Your task to perform on an android device: Open Chrome and go to settings Image 0: 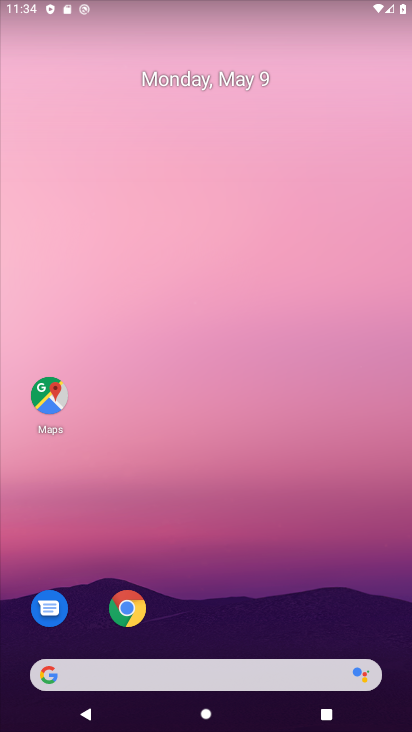
Step 0: drag from (211, 557) to (183, 5)
Your task to perform on an android device: Open Chrome and go to settings Image 1: 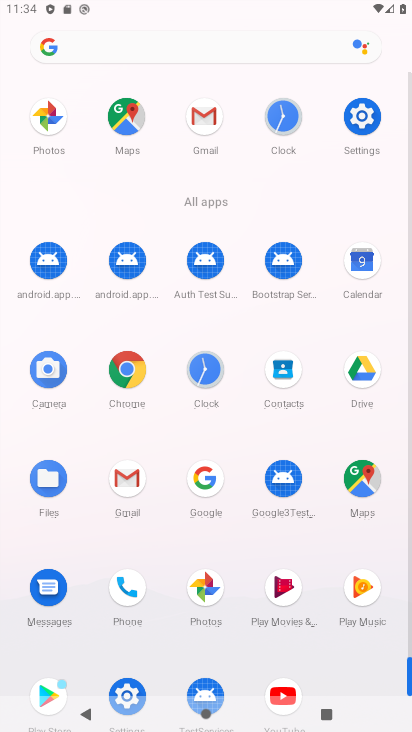
Step 1: drag from (10, 587) to (11, 237)
Your task to perform on an android device: Open Chrome and go to settings Image 2: 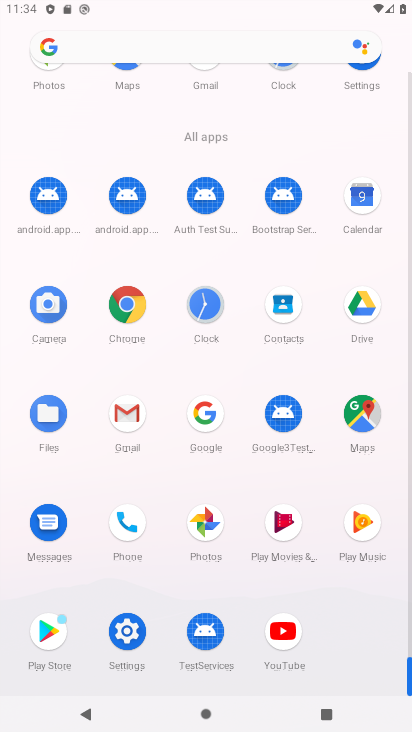
Step 2: click (127, 302)
Your task to perform on an android device: Open Chrome and go to settings Image 3: 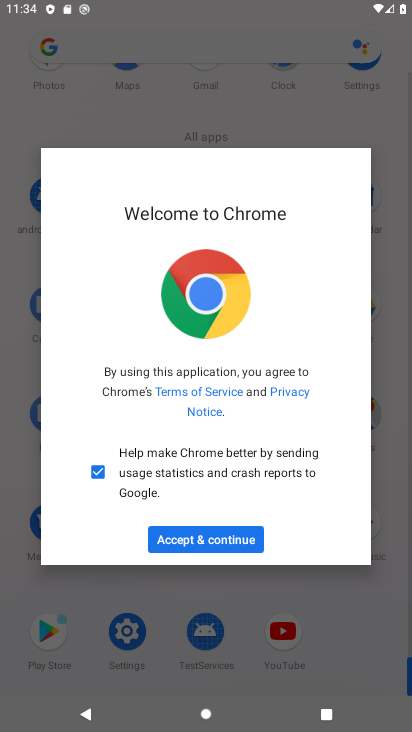
Step 3: click (227, 541)
Your task to perform on an android device: Open Chrome and go to settings Image 4: 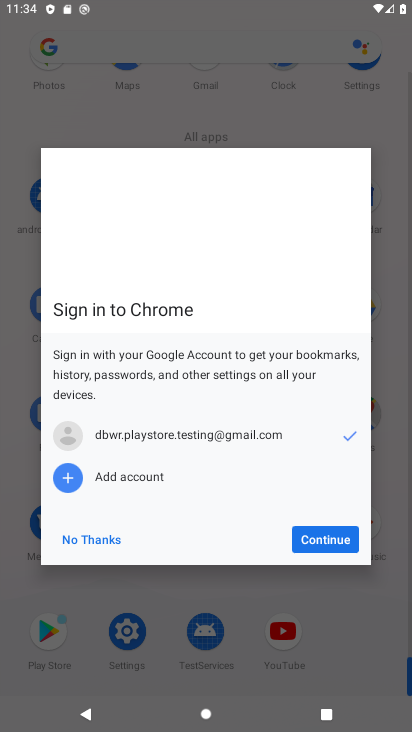
Step 4: click (317, 529)
Your task to perform on an android device: Open Chrome and go to settings Image 5: 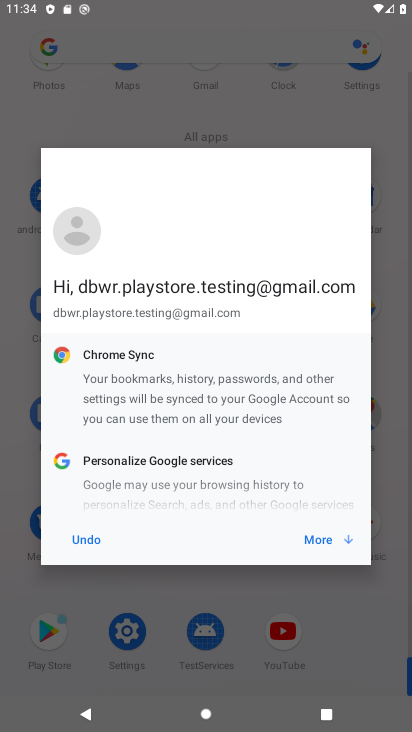
Step 5: click (317, 529)
Your task to perform on an android device: Open Chrome and go to settings Image 6: 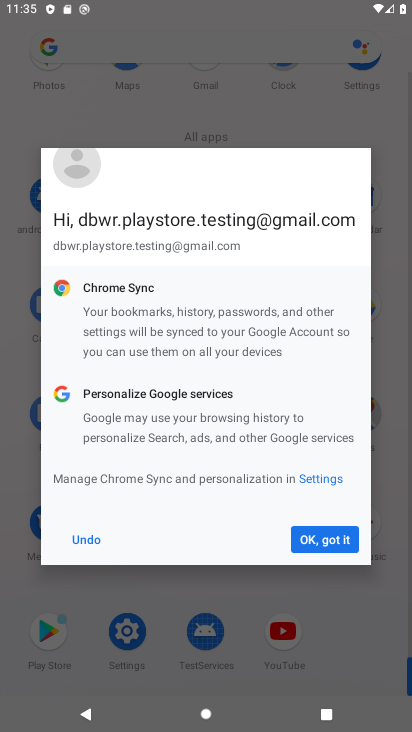
Step 6: click (317, 529)
Your task to perform on an android device: Open Chrome and go to settings Image 7: 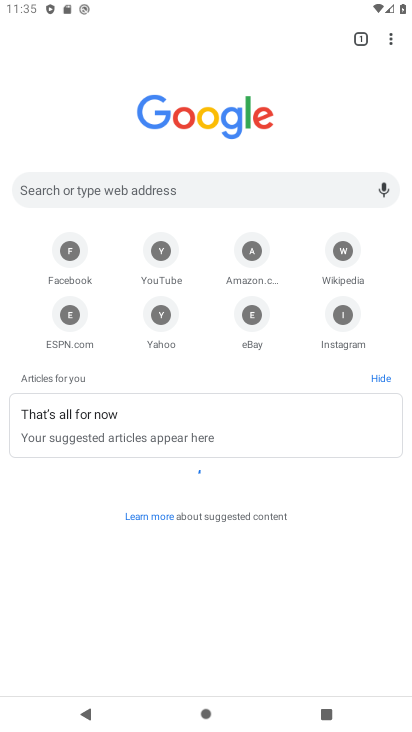
Step 7: task complete